Your task to perform on an android device: show emergency info Image 0: 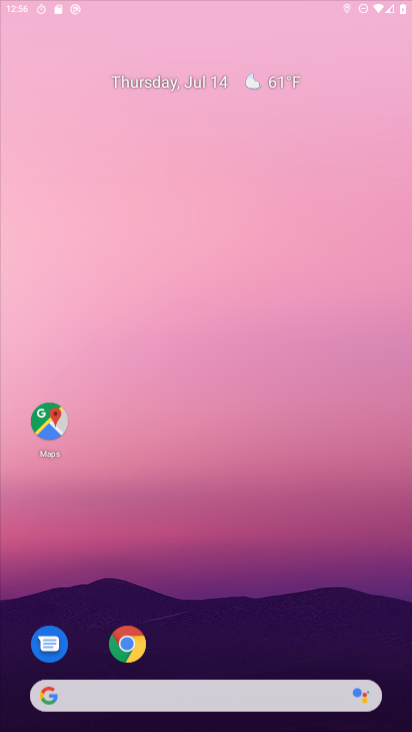
Step 0: drag from (321, 688) to (307, 107)
Your task to perform on an android device: show emergency info Image 1: 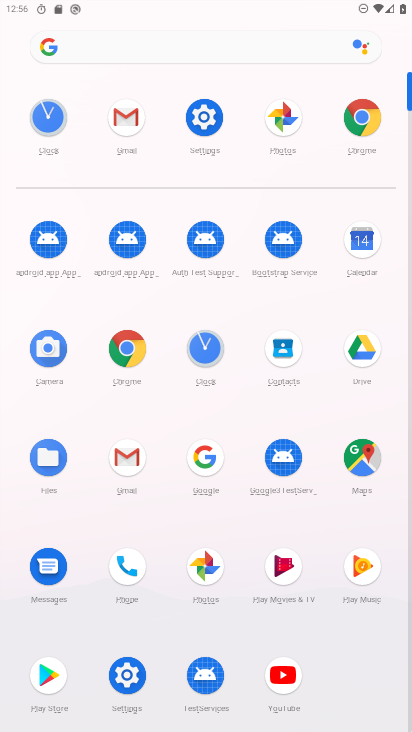
Step 1: click (130, 342)
Your task to perform on an android device: show emergency info Image 2: 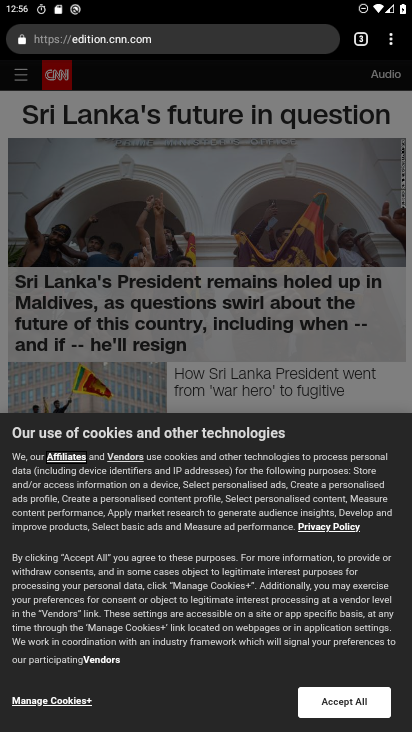
Step 2: click (177, 42)
Your task to perform on an android device: show emergency info Image 3: 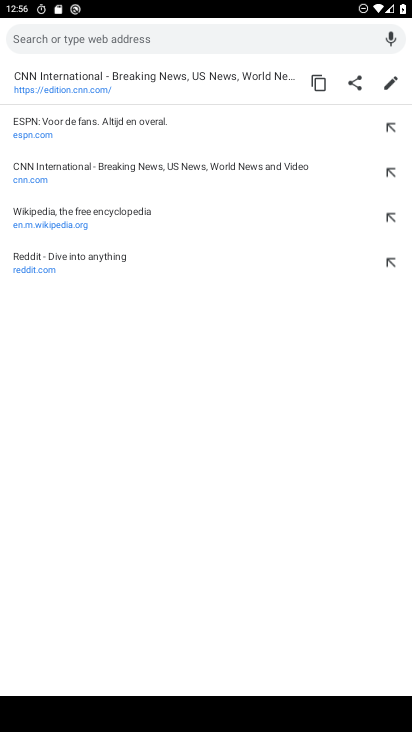
Step 3: press home button
Your task to perform on an android device: show emergency info Image 4: 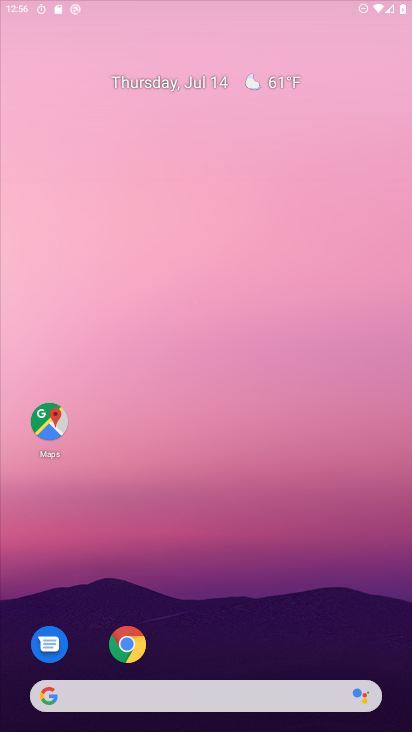
Step 4: drag from (337, 580) to (324, 2)
Your task to perform on an android device: show emergency info Image 5: 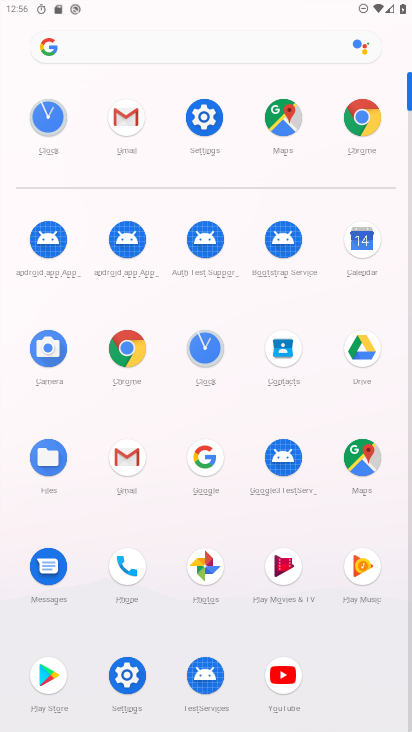
Step 5: click (206, 120)
Your task to perform on an android device: show emergency info Image 6: 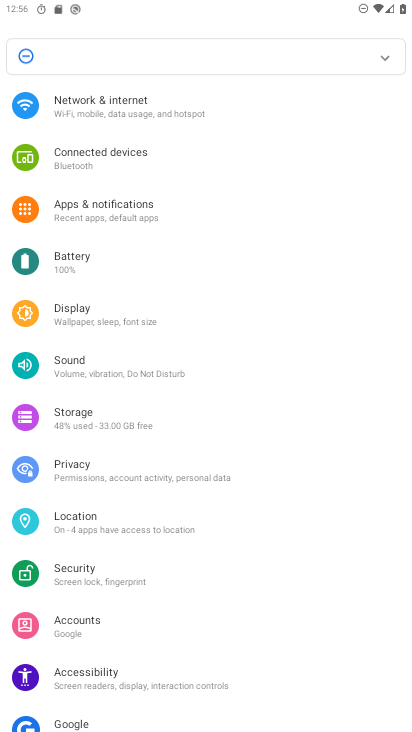
Step 6: drag from (234, 518) to (287, 168)
Your task to perform on an android device: show emergency info Image 7: 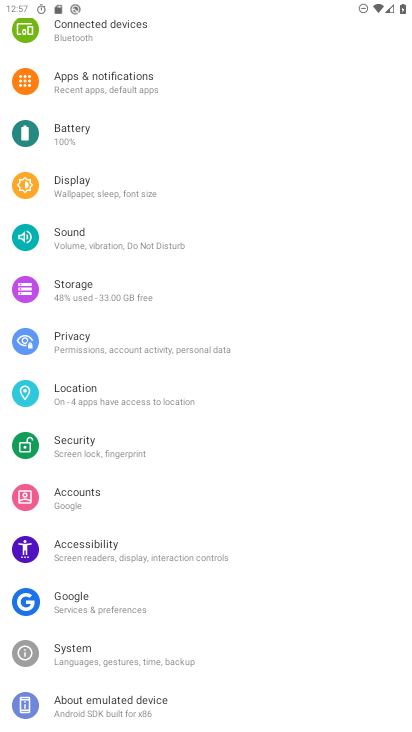
Step 7: click (230, 701)
Your task to perform on an android device: show emergency info Image 8: 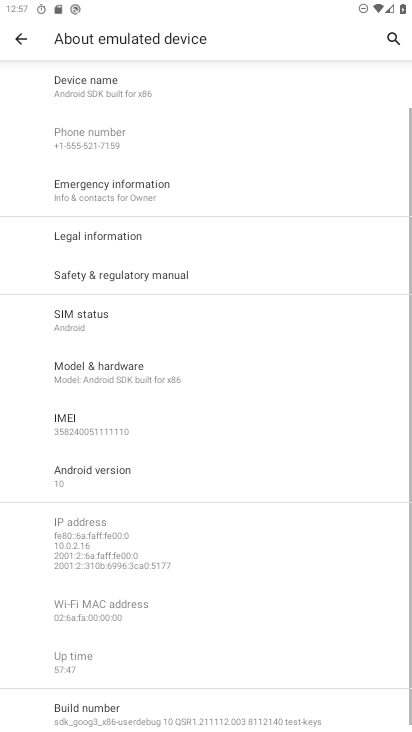
Step 8: click (146, 165)
Your task to perform on an android device: show emergency info Image 9: 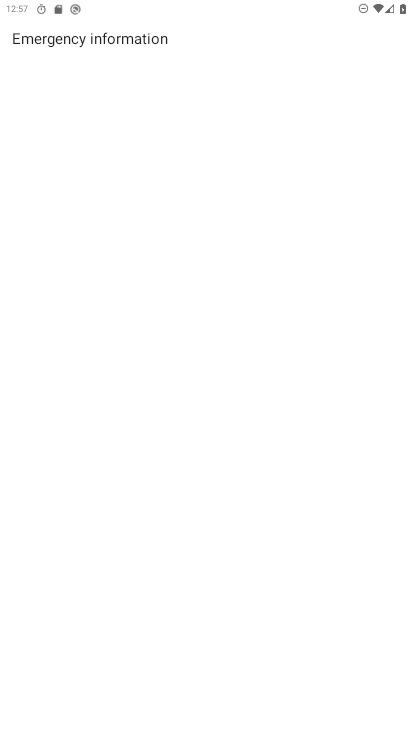
Step 9: task complete